Your task to perform on an android device: find snoozed emails in the gmail app Image 0: 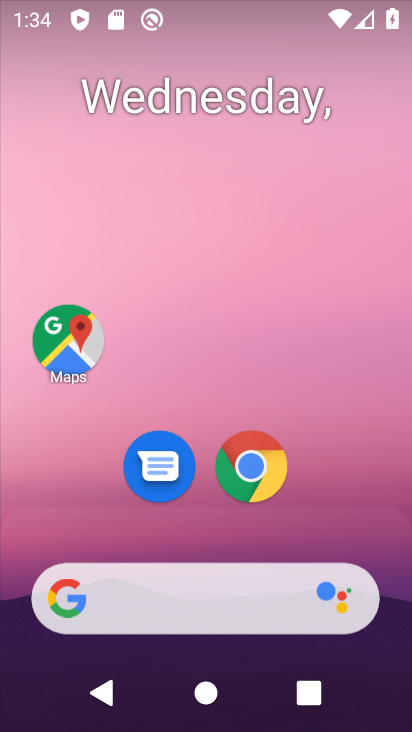
Step 0: drag from (328, 423) to (261, 22)
Your task to perform on an android device: find snoozed emails in the gmail app Image 1: 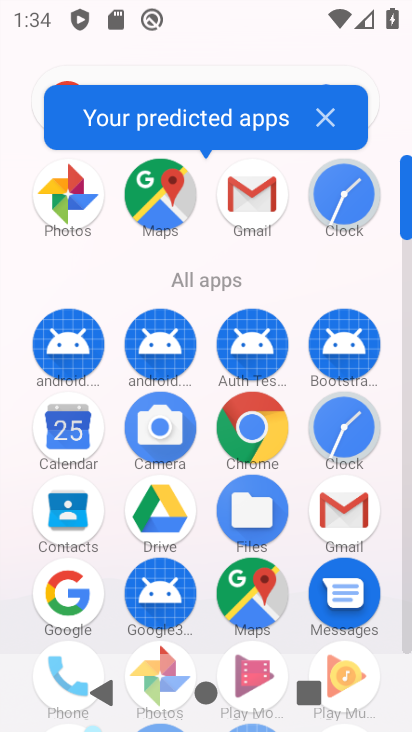
Step 1: drag from (15, 530) to (30, 141)
Your task to perform on an android device: find snoozed emails in the gmail app Image 2: 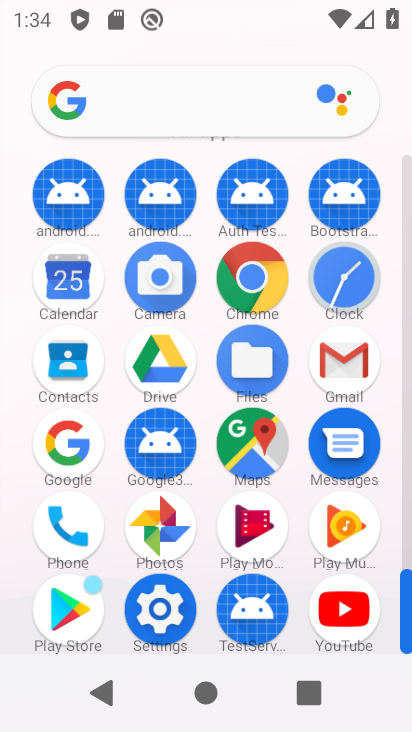
Step 2: click (345, 354)
Your task to perform on an android device: find snoozed emails in the gmail app Image 3: 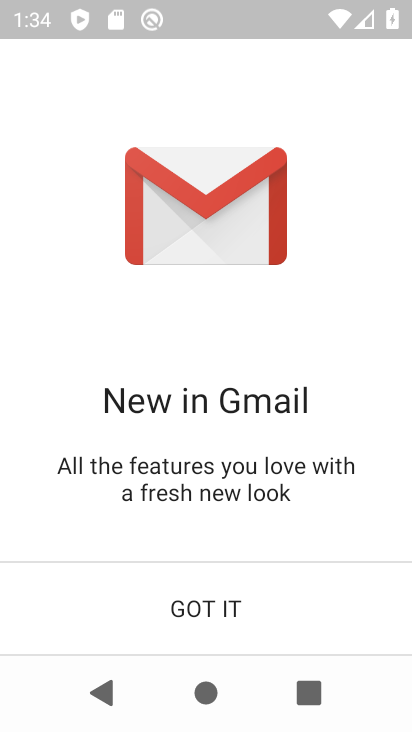
Step 3: click (216, 598)
Your task to perform on an android device: find snoozed emails in the gmail app Image 4: 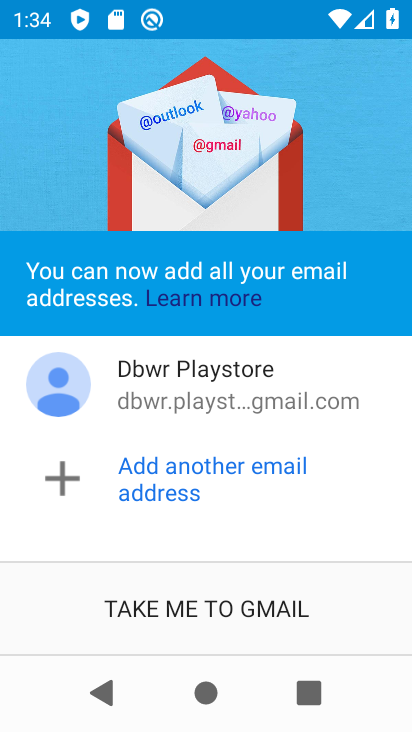
Step 4: click (220, 594)
Your task to perform on an android device: find snoozed emails in the gmail app Image 5: 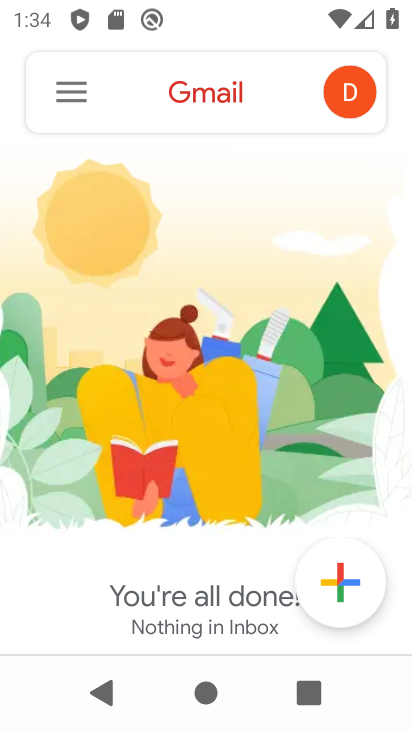
Step 5: click (58, 99)
Your task to perform on an android device: find snoozed emails in the gmail app Image 6: 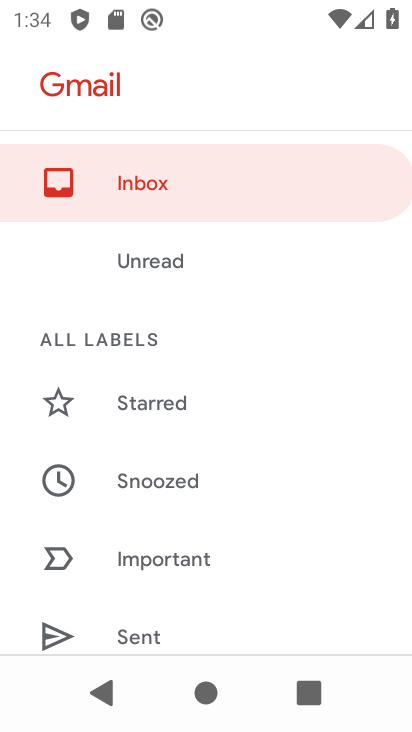
Step 6: drag from (254, 575) to (256, 224)
Your task to perform on an android device: find snoozed emails in the gmail app Image 7: 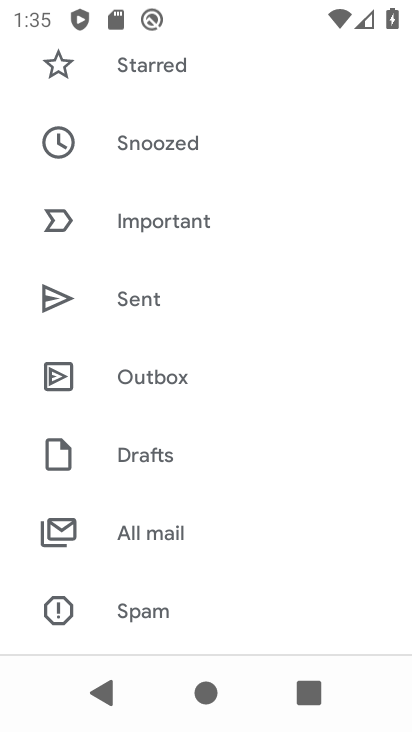
Step 7: drag from (250, 525) to (272, 132)
Your task to perform on an android device: find snoozed emails in the gmail app Image 8: 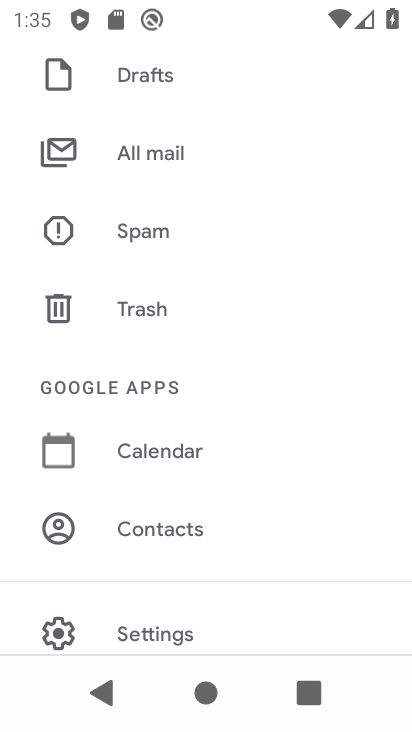
Step 8: drag from (269, 156) to (270, 610)
Your task to perform on an android device: find snoozed emails in the gmail app Image 9: 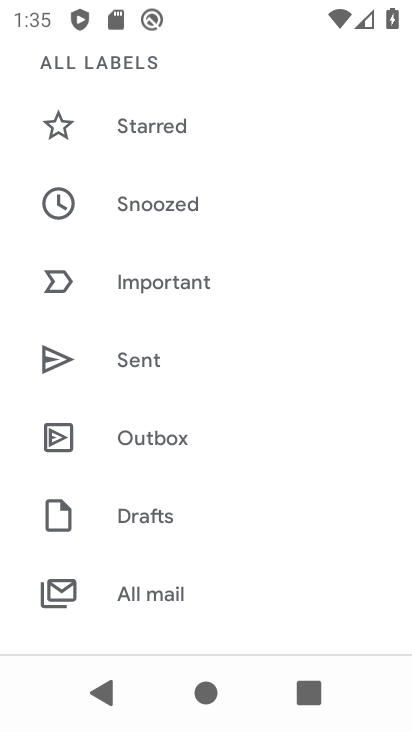
Step 9: click (179, 200)
Your task to perform on an android device: find snoozed emails in the gmail app Image 10: 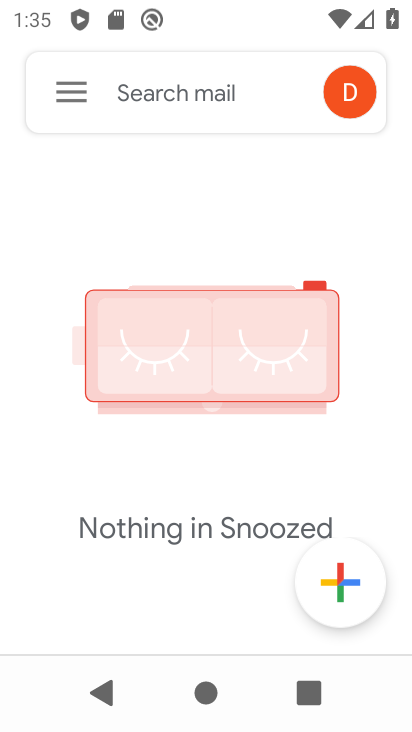
Step 10: task complete